Your task to perform on an android device: clear history in the chrome app Image 0: 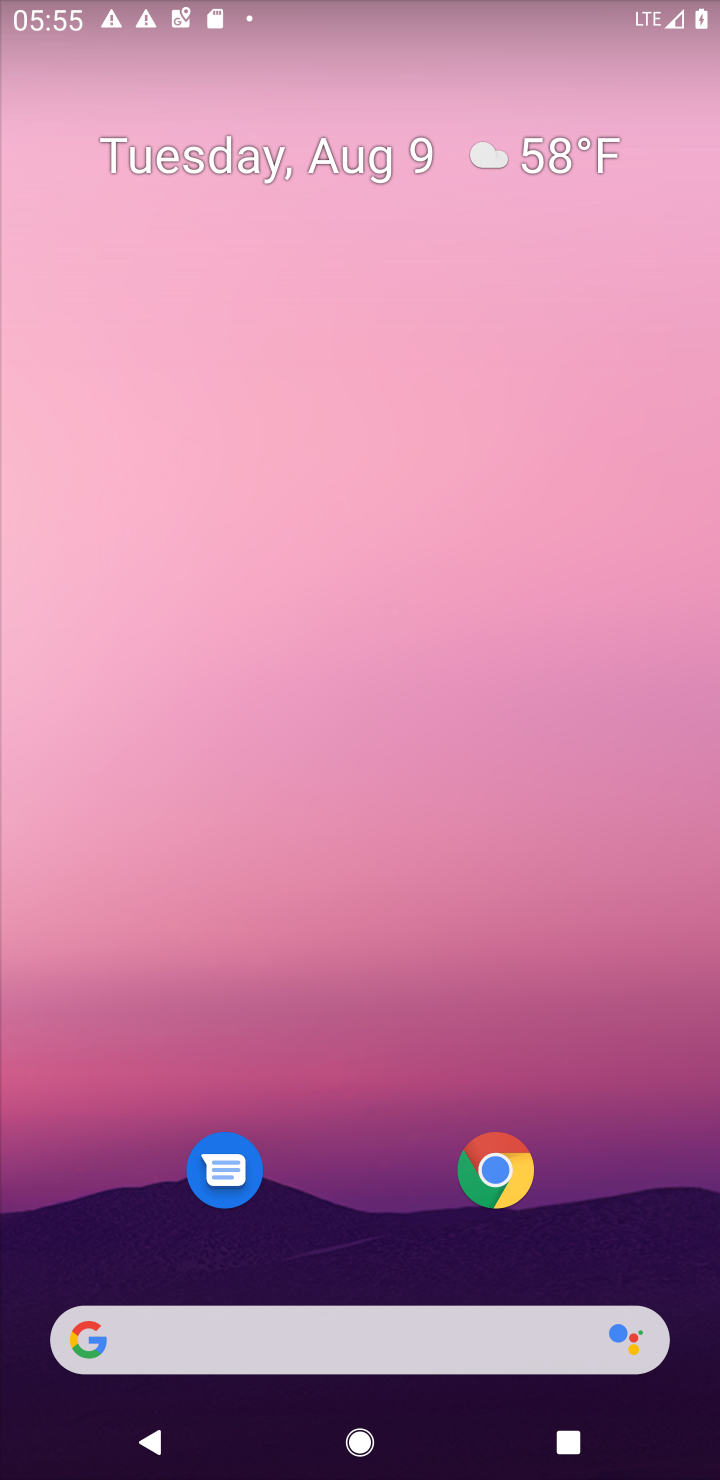
Step 0: press home button
Your task to perform on an android device: clear history in the chrome app Image 1: 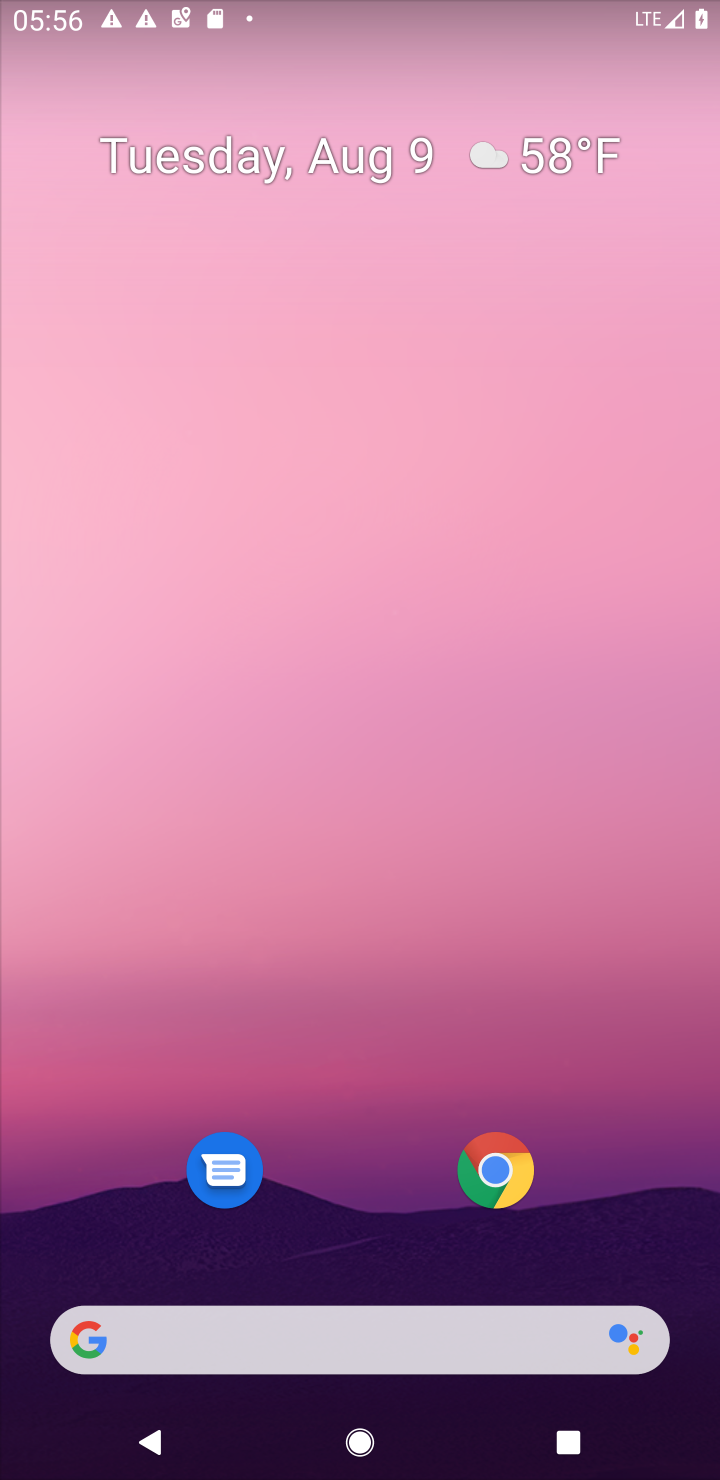
Step 1: click (487, 1177)
Your task to perform on an android device: clear history in the chrome app Image 2: 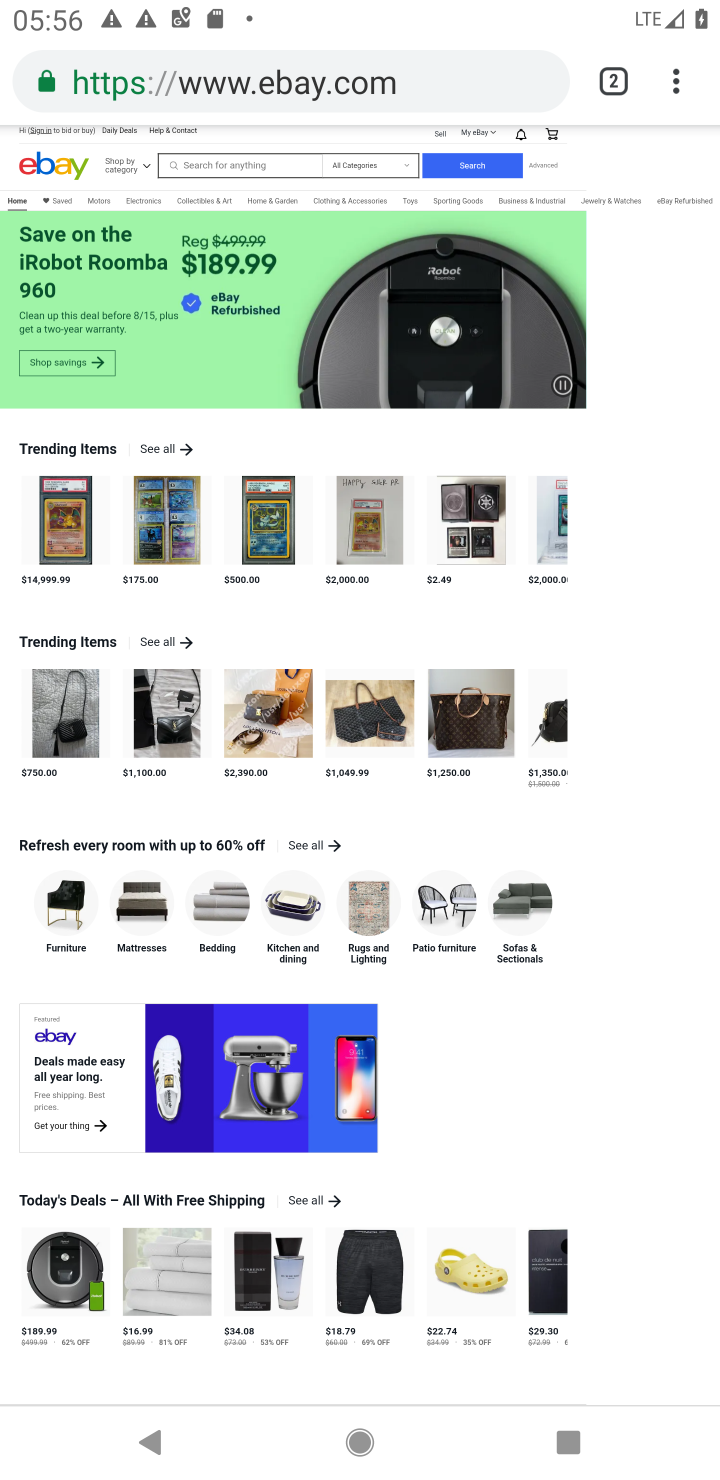
Step 2: drag from (674, 77) to (377, 464)
Your task to perform on an android device: clear history in the chrome app Image 3: 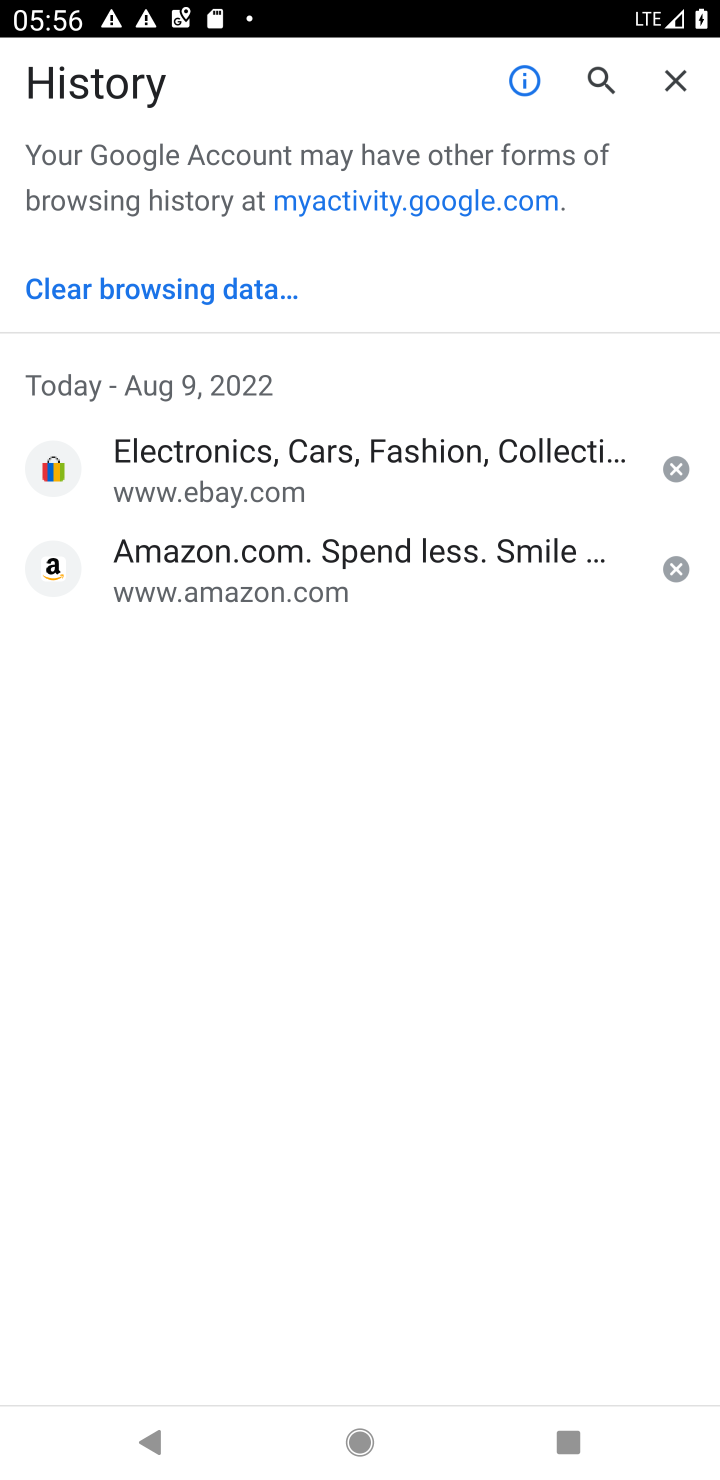
Step 3: click (167, 304)
Your task to perform on an android device: clear history in the chrome app Image 4: 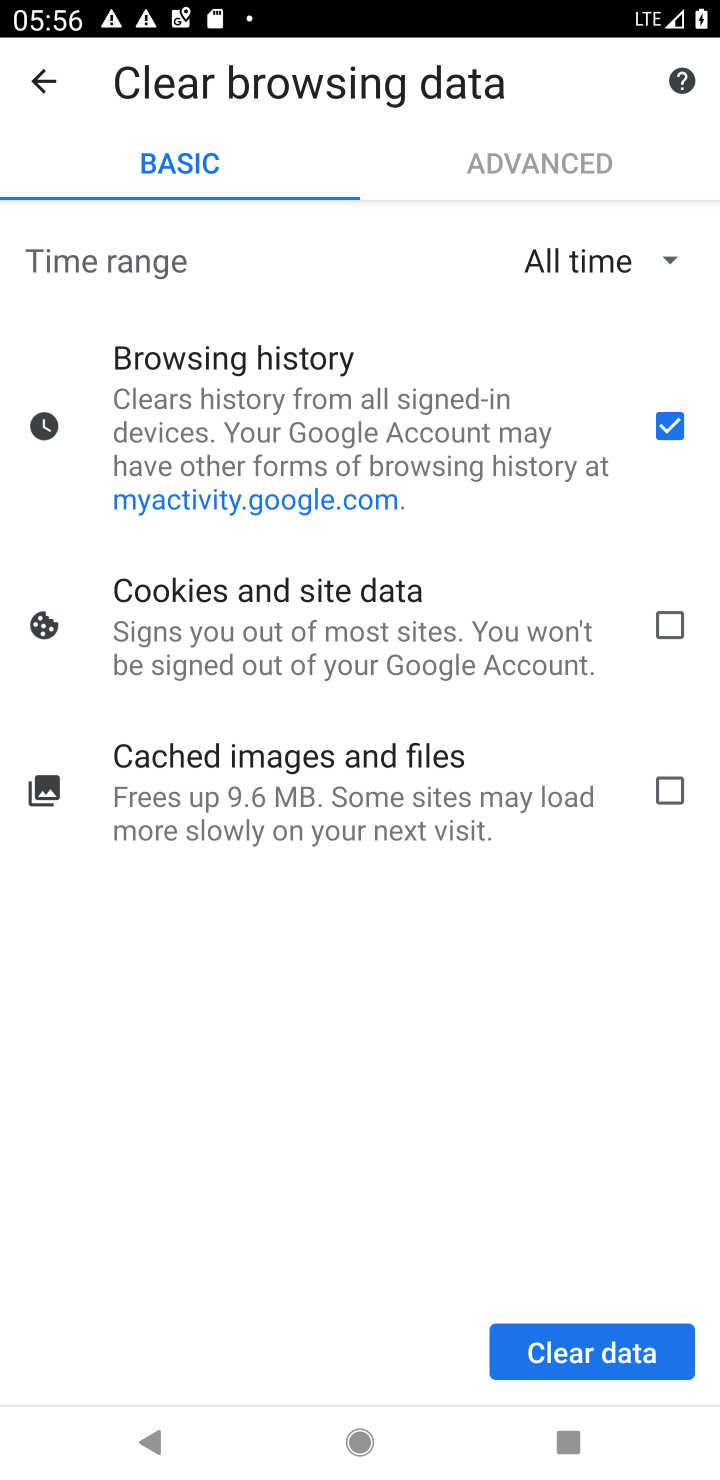
Step 4: click (583, 1344)
Your task to perform on an android device: clear history in the chrome app Image 5: 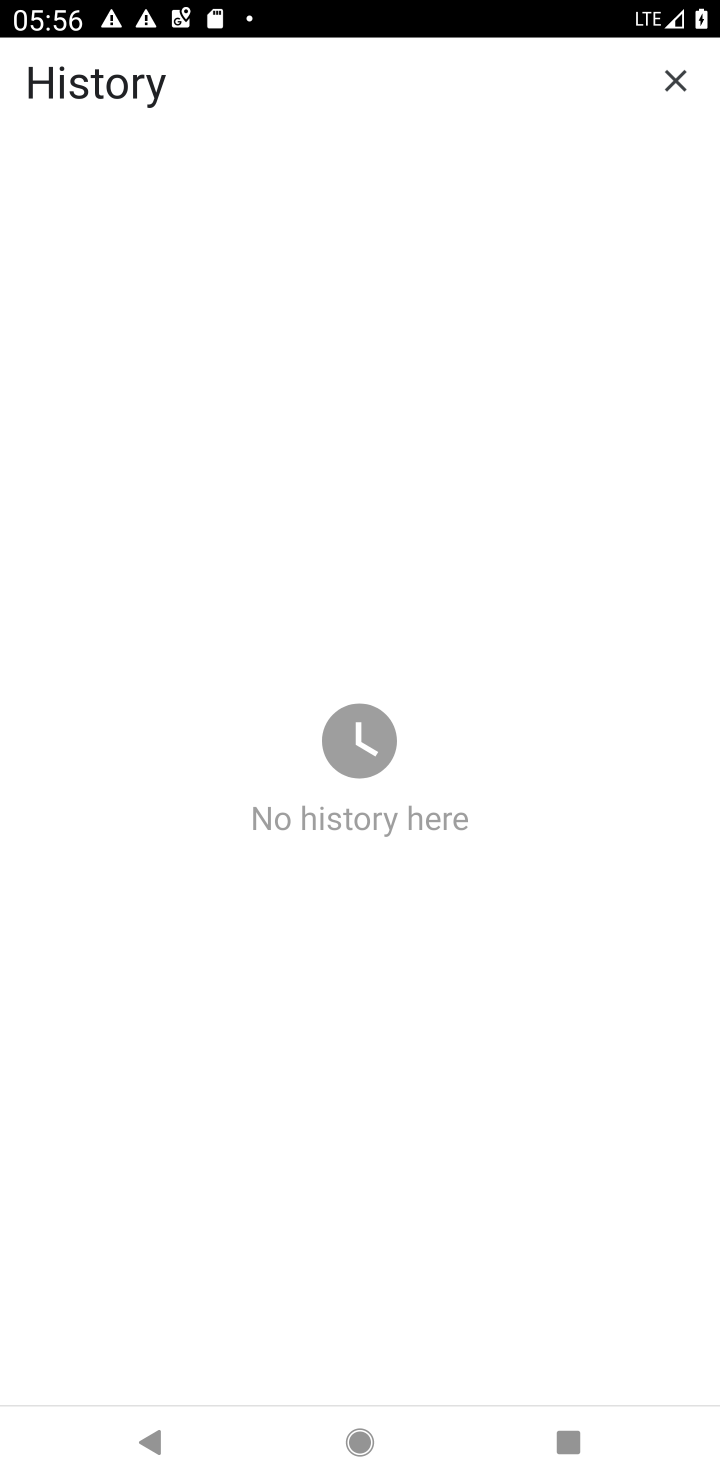
Step 5: task complete